Your task to perform on an android device: clear history in the chrome app Image 0: 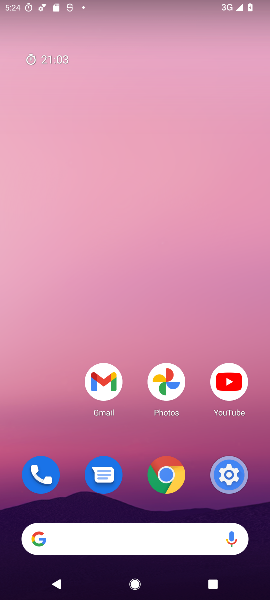
Step 0: press home button
Your task to perform on an android device: clear history in the chrome app Image 1: 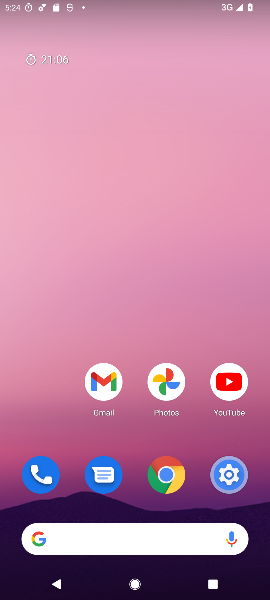
Step 1: drag from (49, 423) to (46, 121)
Your task to perform on an android device: clear history in the chrome app Image 2: 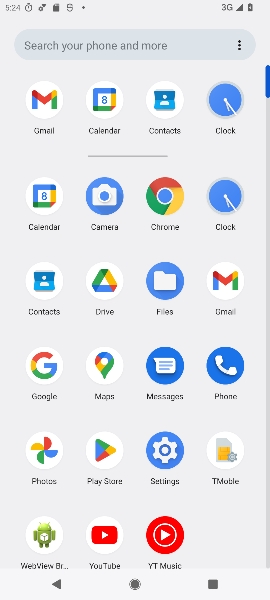
Step 2: click (168, 189)
Your task to perform on an android device: clear history in the chrome app Image 3: 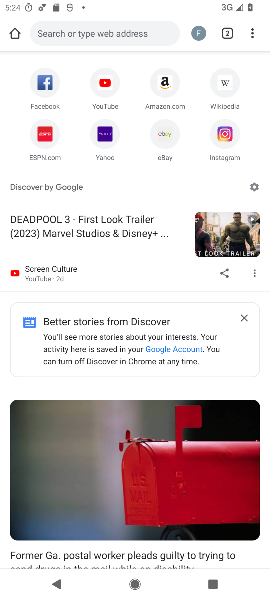
Step 3: click (251, 32)
Your task to perform on an android device: clear history in the chrome app Image 4: 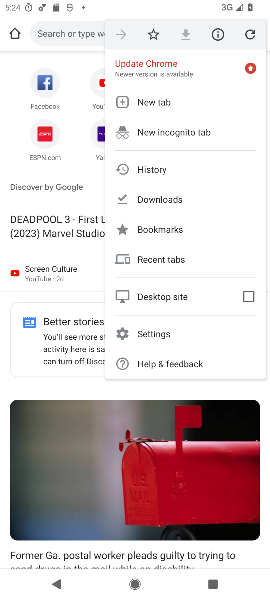
Step 4: click (165, 166)
Your task to perform on an android device: clear history in the chrome app Image 5: 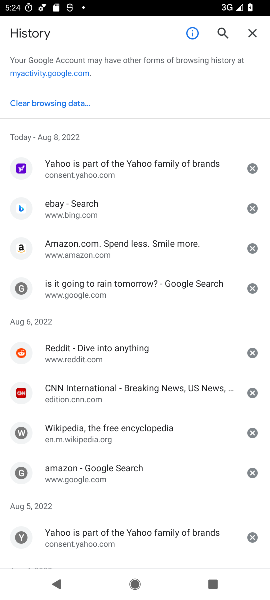
Step 5: click (87, 102)
Your task to perform on an android device: clear history in the chrome app Image 6: 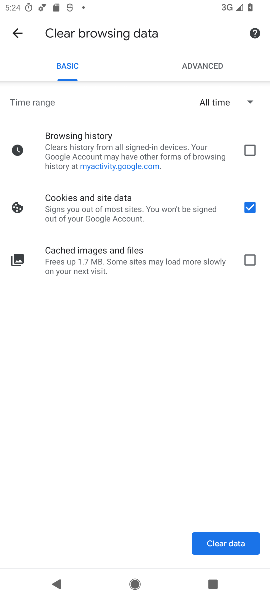
Step 6: click (245, 260)
Your task to perform on an android device: clear history in the chrome app Image 7: 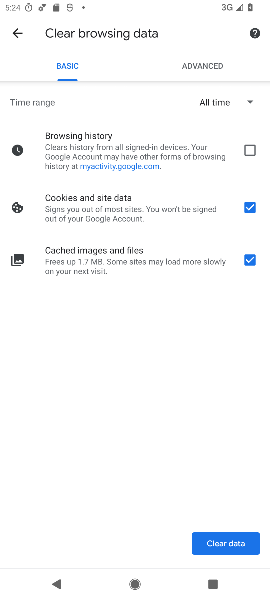
Step 7: click (253, 147)
Your task to perform on an android device: clear history in the chrome app Image 8: 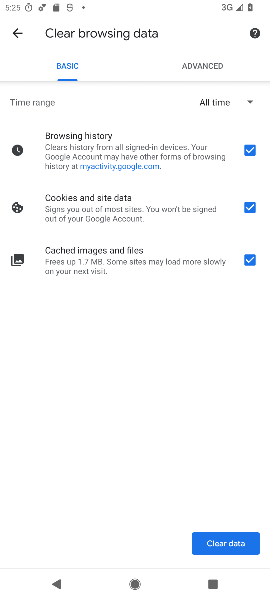
Step 8: click (223, 541)
Your task to perform on an android device: clear history in the chrome app Image 9: 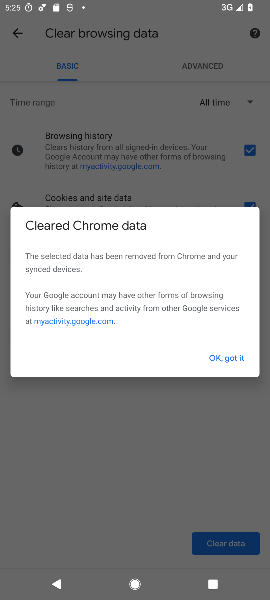
Step 9: click (228, 357)
Your task to perform on an android device: clear history in the chrome app Image 10: 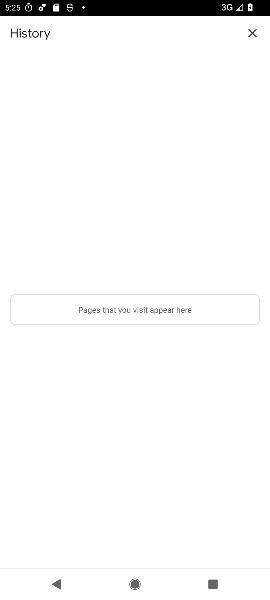
Step 10: task complete